Your task to perform on an android device: search for starred emails in the gmail app Image 0: 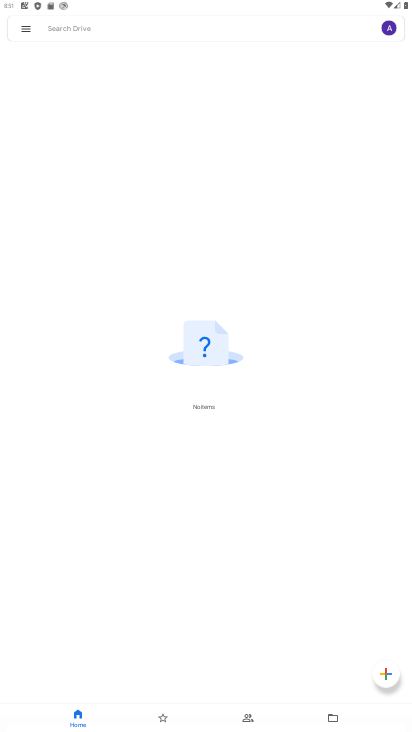
Step 0: press home button
Your task to perform on an android device: search for starred emails in the gmail app Image 1: 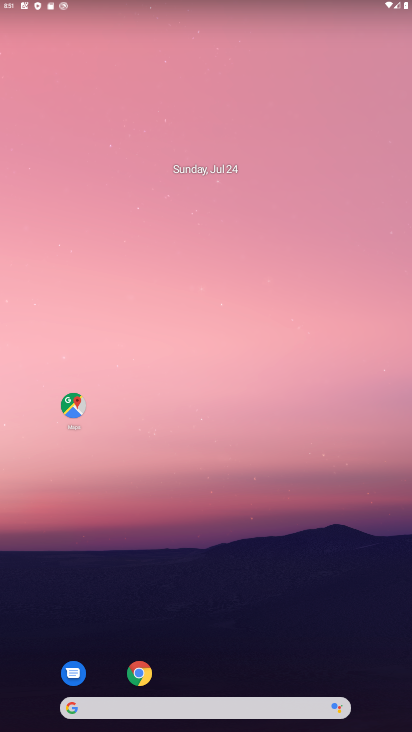
Step 1: drag from (194, 543) to (194, 210)
Your task to perform on an android device: search for starred emails in the gmail app Image 2: 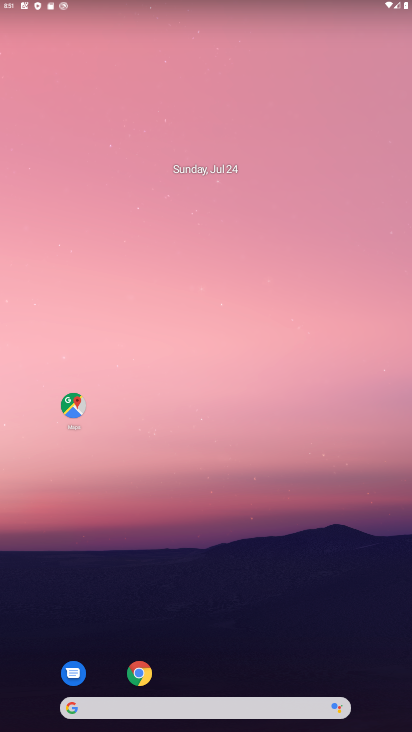
Step 2: drag from (201, 542) to (267, 215)
Your task to perform on an android device: search for starred emails in the gmail app Image 3: 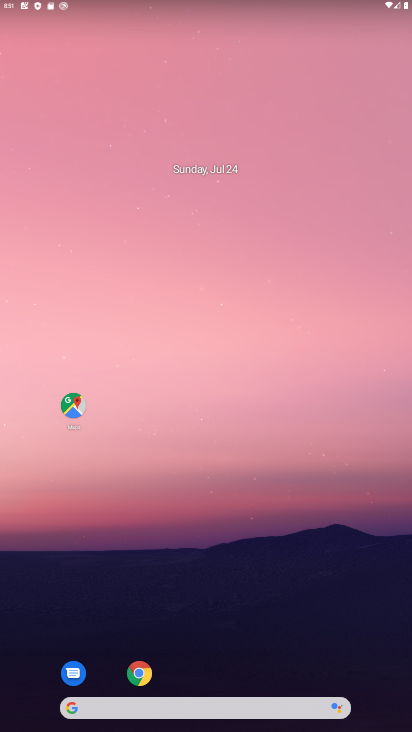
Step 3: drag from (206, 635) to (234, 203)
Your task to perform on an android device: search for starred emails in the gmail app Image 4: 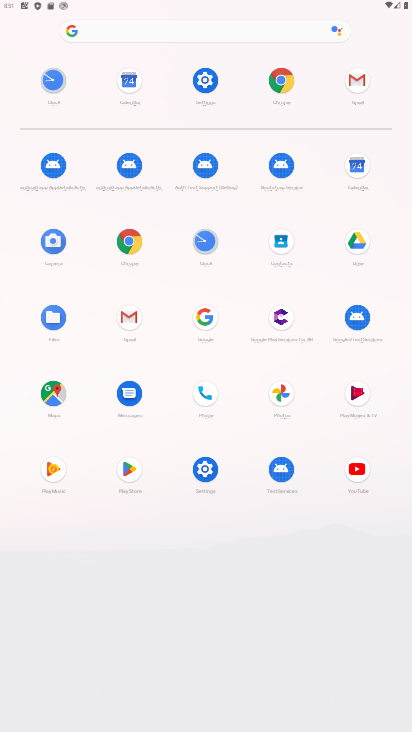
Step 4: click (127, 324)
Your task to perform on an android device: search for starred emails in the gmail app Image 5: 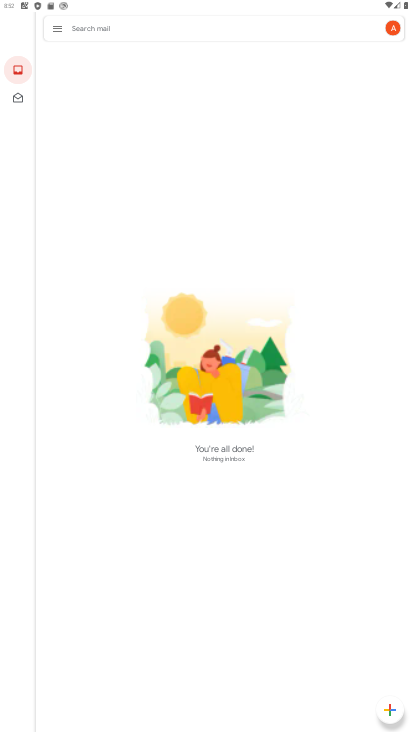
Step 5: click (58, 29)
Your task to perform on an android device: search for starred emails in the gmail app Image 6: 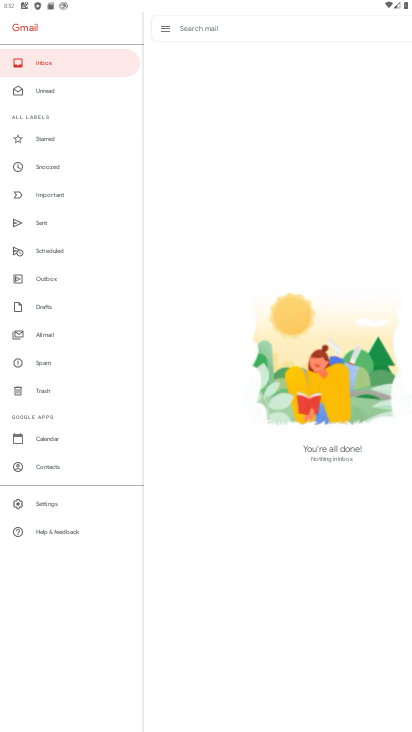
Step 6: click (59, 142)
Your task to perform on an android device: search for starred emails in the gmail app Image 7: 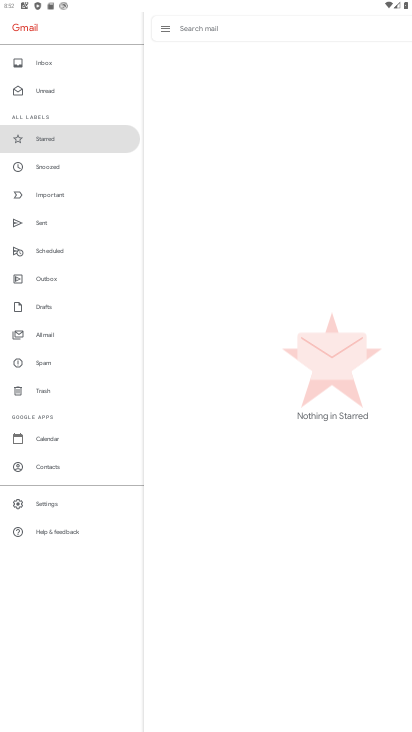
Step 7: task complete